Your task to perform on an android device: toggle sleep mode Image 0: 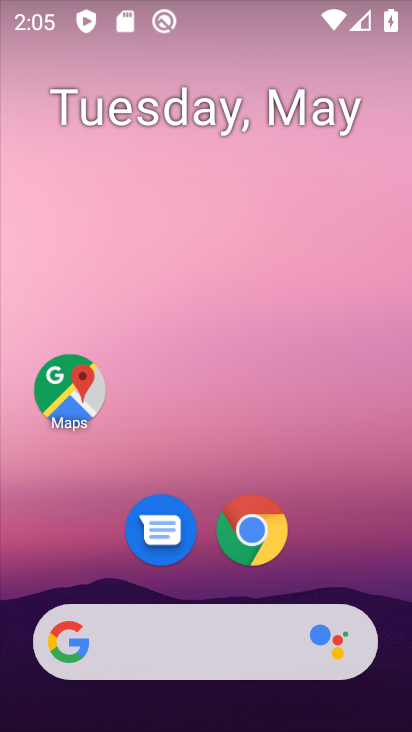
Step 0: drag from (214, 602) to (259, 7)
Your task to perform on an android device: toggle sleep mode Image 1: 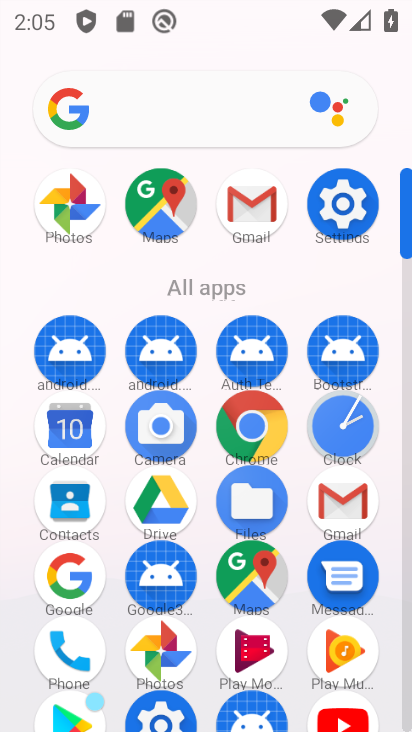
Step 1: click (348, 204)
Your task to perform on an android device: toggle sleep mode Image 2: 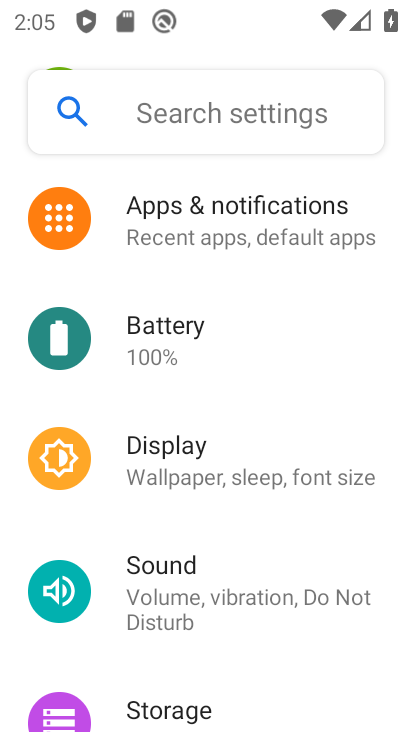
Step 2: click (182, 477)
Your task to perform on an android device: toggle sleep mode Image 3: 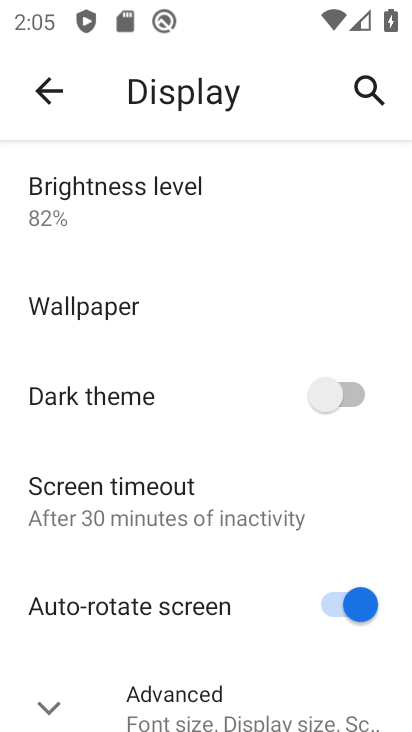
Step 3: click (173, 690)
Your task to perform on an android device: toggle sleep mode Image 4: 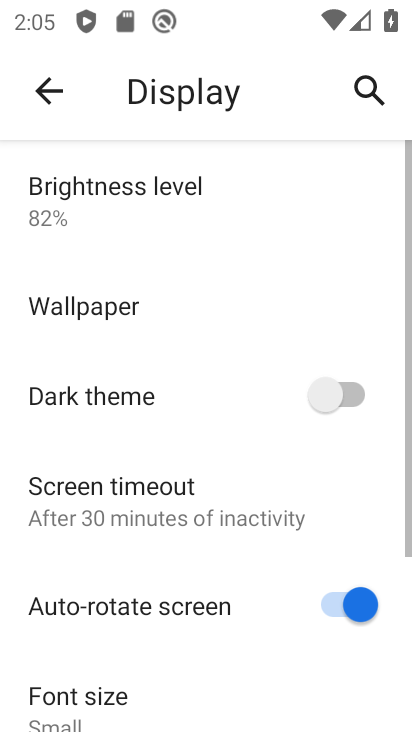
Step 4: task complete